Your task to perform on an android device: Open calendar and show me the third week of next month Image 0: 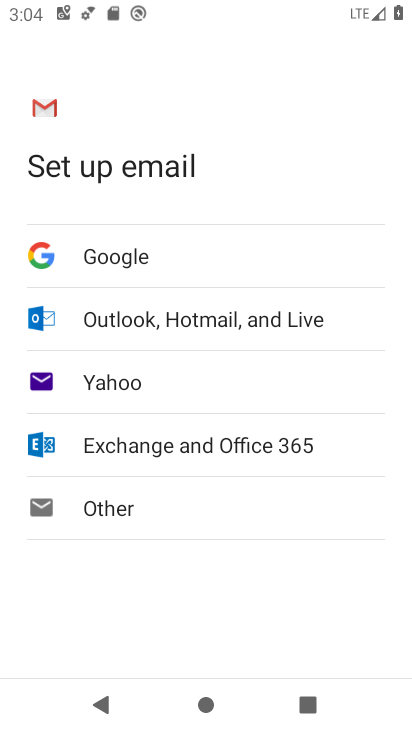
Step 0: press home button
Your task to perform on an android device: Open calendar and show me the third week of next month Image 1: 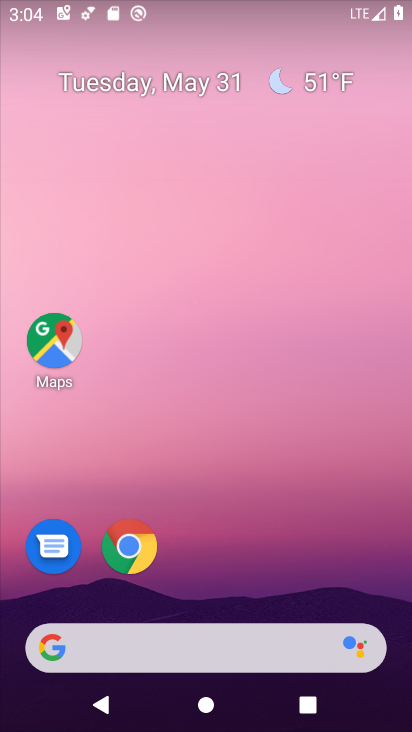
Step 1: drag from (282, 521) to (226, 76)
Your task to perform on an android device: Open calendar and show me the third week of next month Image 2: 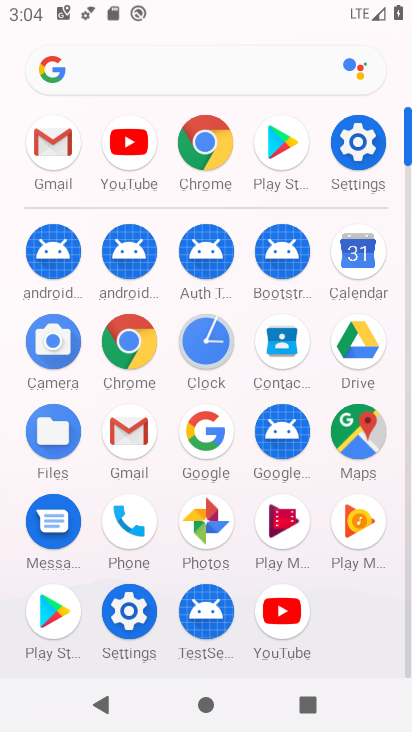
Step 2: click (366, 254)
Your task to perform on an android device: Open calendar and show me the third week of next month Image 3: 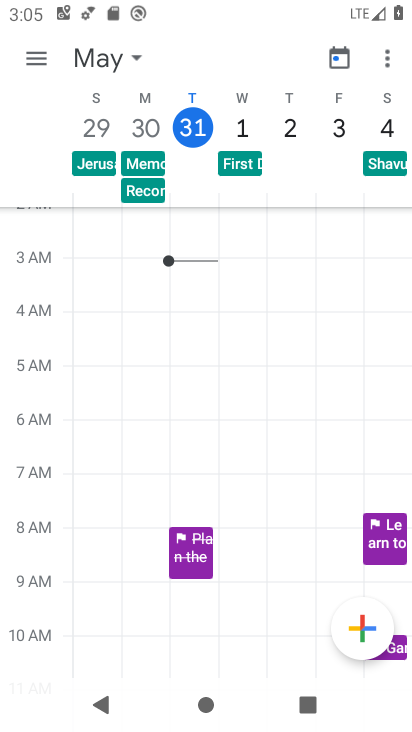
Step 3: click (116, 49)
Your task to perform on an android device: Open calendar and show me the third week of next month Image 4: 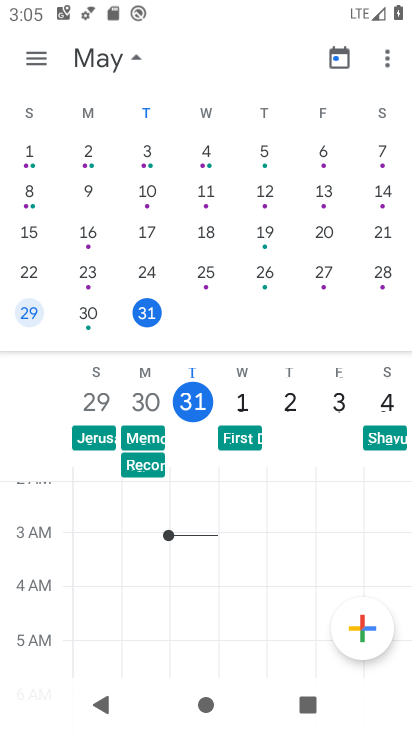
Step 4: drag from (362, 223) to (17, 246)
Your task to perform on an android device: Open calendar and show me the third week of next month Image 5: 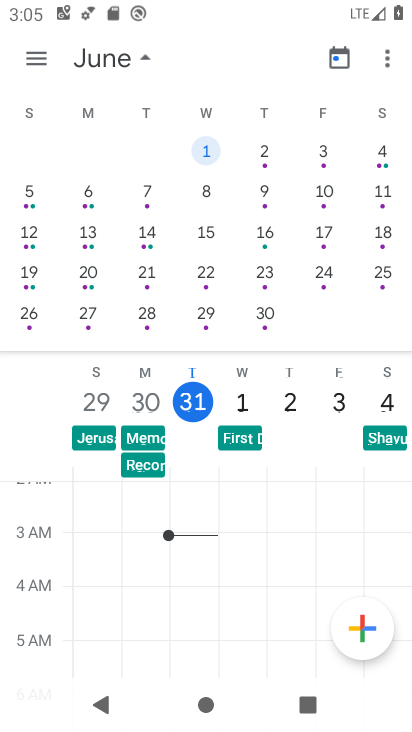
Step 5: click (35, 232)
Your task to perform on an android device: Open calendar and show me the third week of next month Image 6: 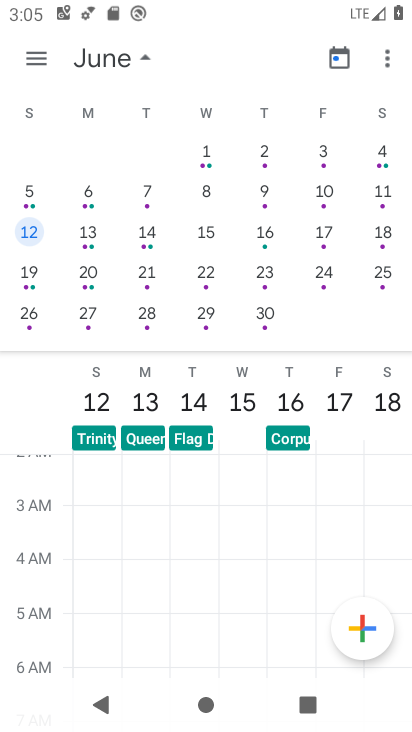
Step 6: task complete